Your task to perform on an android device: Open my contact list Image 0: 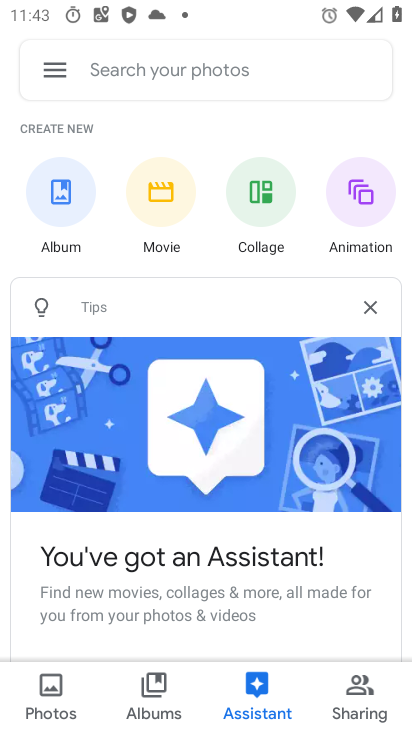
Step 0: press home button
Your task to perform on an android device: Open my contact list Image 1: 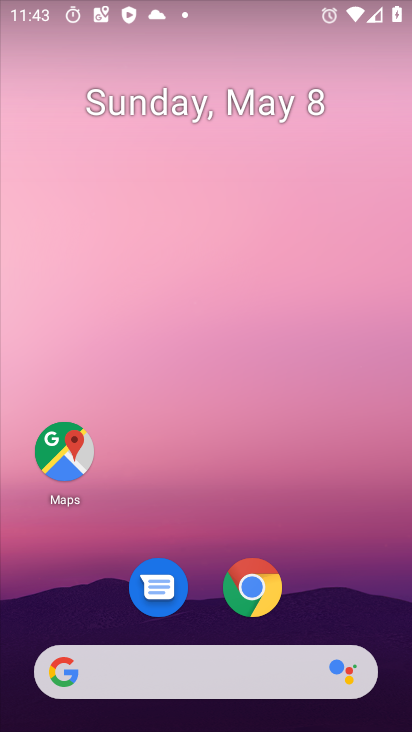
Step 1: drag from (328, 612) to (188, 39)
Your task to perform on an android device: Open my contact list Image 2: 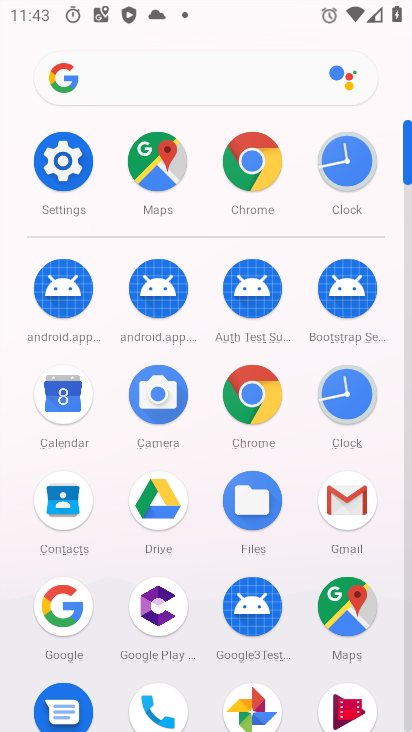
Step 2: click (68, 495)
Your task to perform on an android device: Open my contact list Image 3: 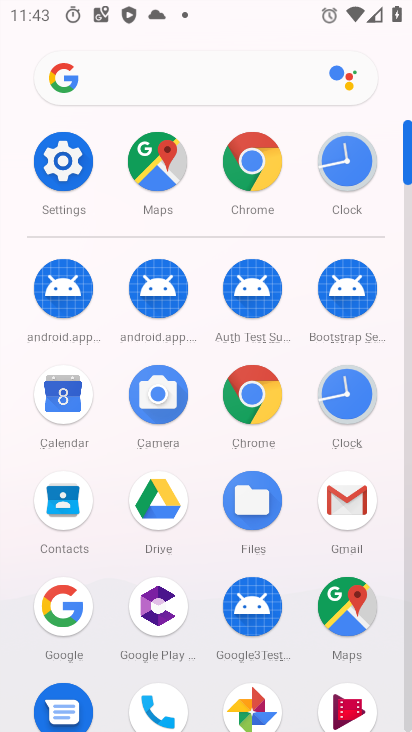
Step 3: click (68, 494)
Your task to perform on an android device: Open my contact list Image 4: 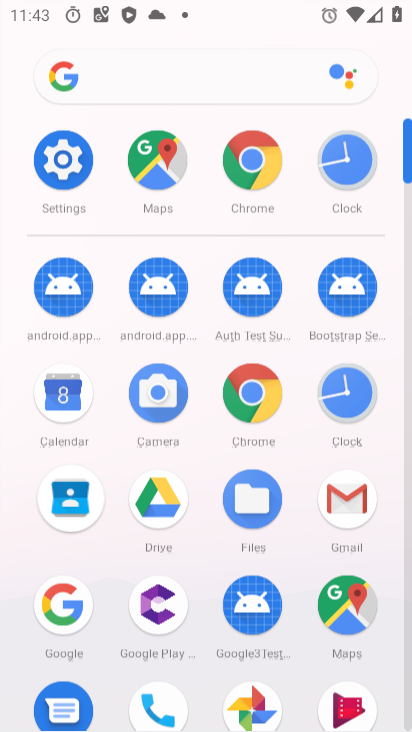
Step 4: click (67, 493)
Your task to perform on an android device: Open my contact list Image 5: 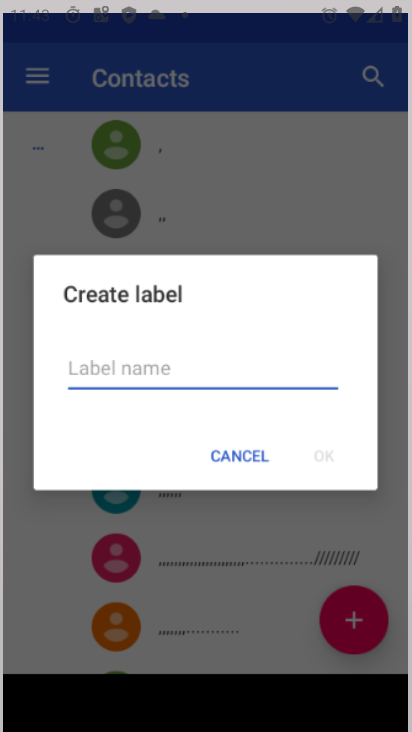
Step 5: click (67, 493)
Your task to perform on an android device: Open my contact list Image 6: 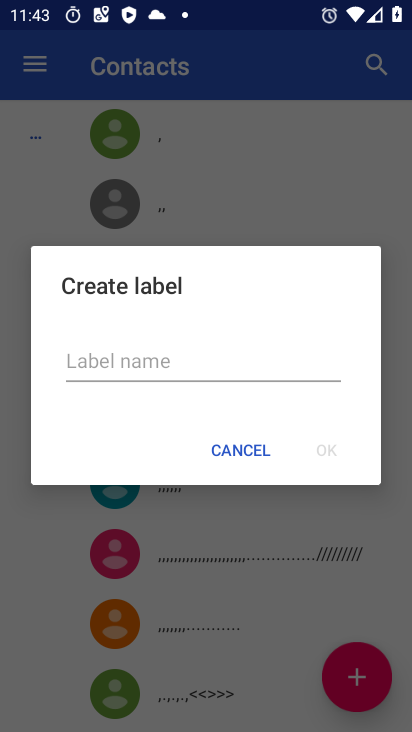
Step 6: click (242, 450)
Your task to perform on an android device: Open my contact list Image 7: 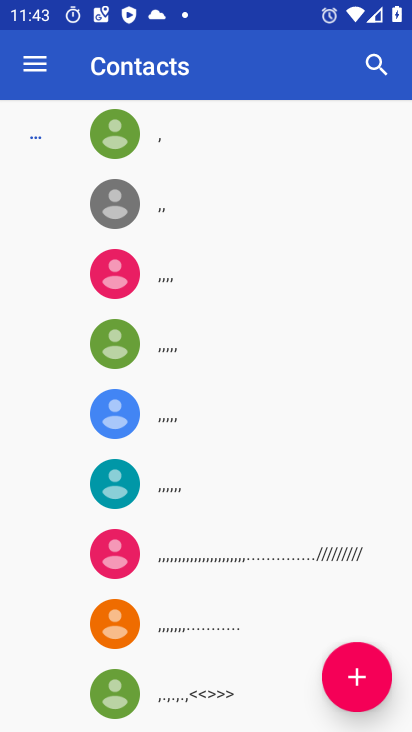
Step 7: task complete